Your task to perform on an android device: check google app version Image 0: 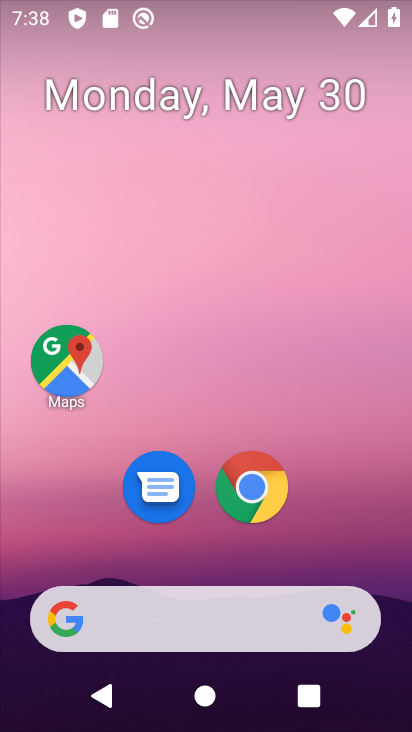
Step 0: drag from (312, 566) to (273, 175)
Your task to perform on an android device: check google app version Image 1: 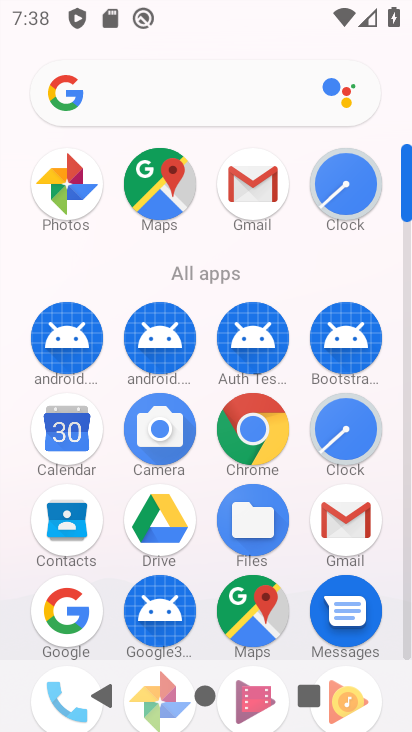
Step 1: click (60, 605)
Your task to perform on an android device: check google app version Image 2: 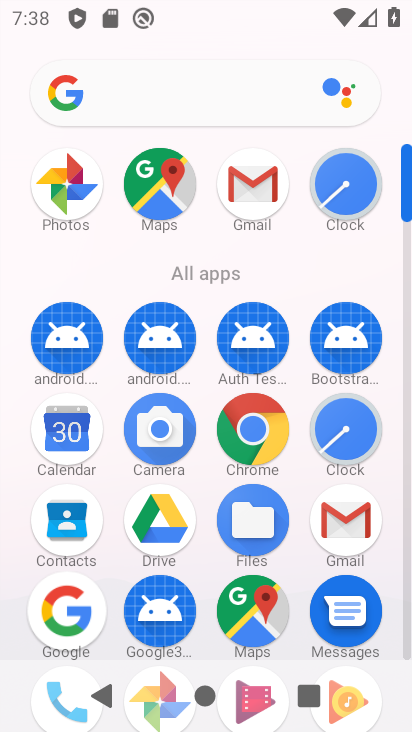
Step 2: click (54, 602)
Your task to perform on an android device: check google app version Image 3: 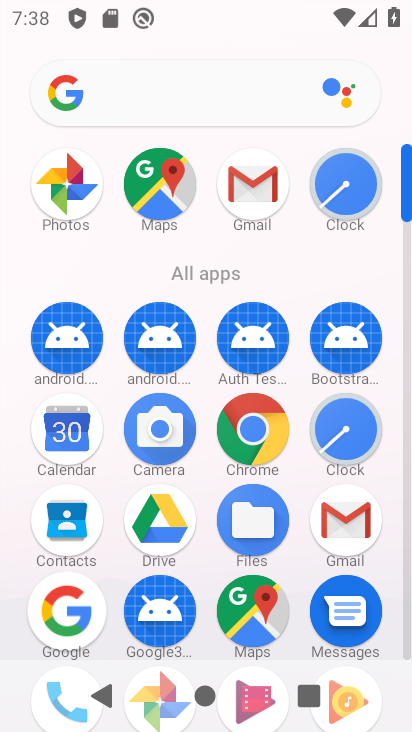
Step 3: click (66, 600)
Your task to perform on an android device: check google app version Image 4: 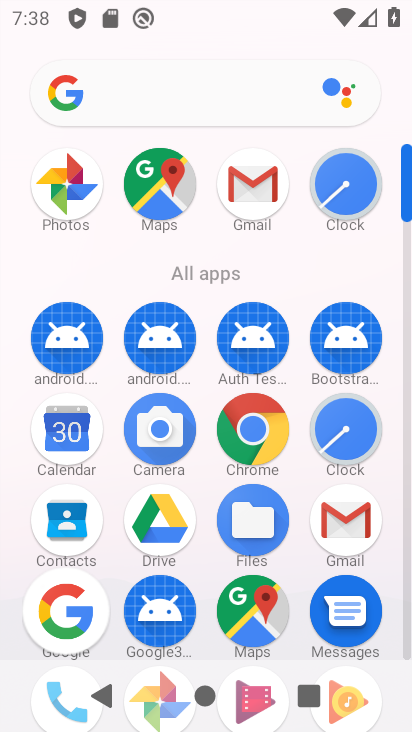
Step 4: click (66, 603)
Your task to perform on an android device: check google app version Image 5: 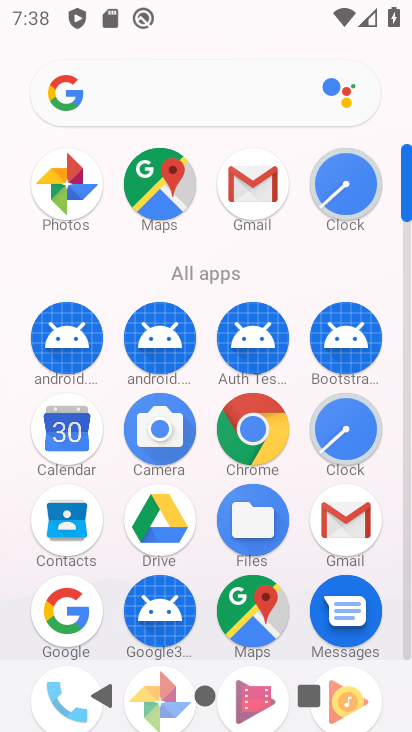
Step 5: click (66, 597)
Your task to perform on an android device: check google app version Image 6: 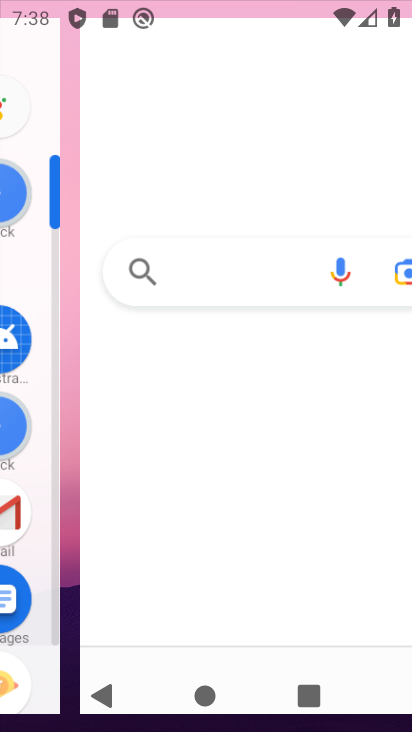
Step 6: click (62, 610)
Your task to perform on an android device: check google app version Image 7: 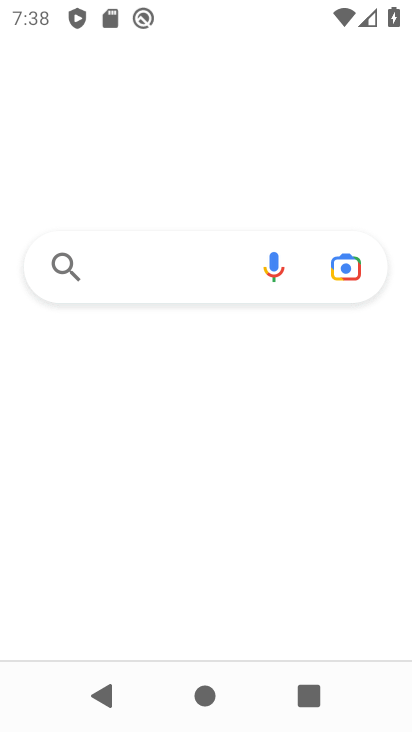
Step 7: drag from (206, 502) to (214, 336)
Your task to perform on an android device: check google app version Image 8: 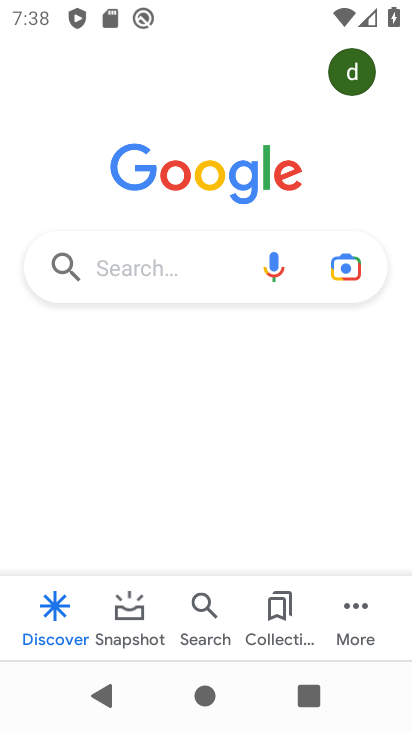
Step 8: click (347, 608)
Your task to perform on an android device: check google app version Image 9: 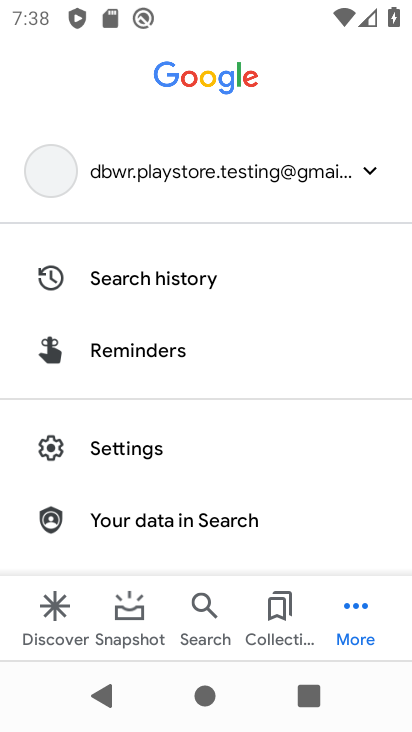
Step 9: click (361, 596)
Your task to perform on an android device: check google app version Image 10: 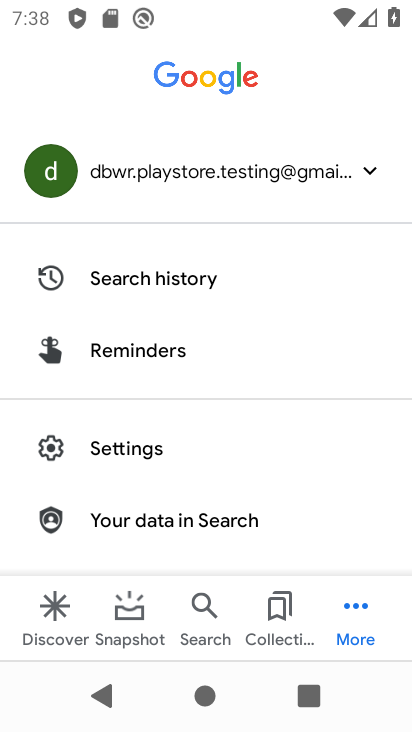
Step 10: click (105, 430)
Your task to perform on an android device: check google app version Image 11: 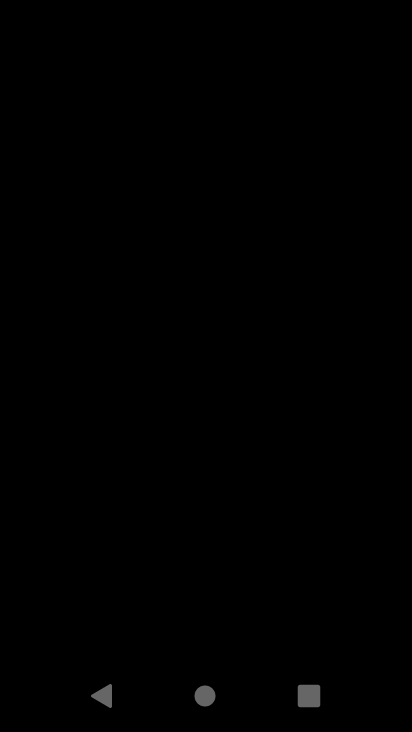
Step 11: task complete